Your task to perform on an android device: move a message to another label in the gmail app Image 0: 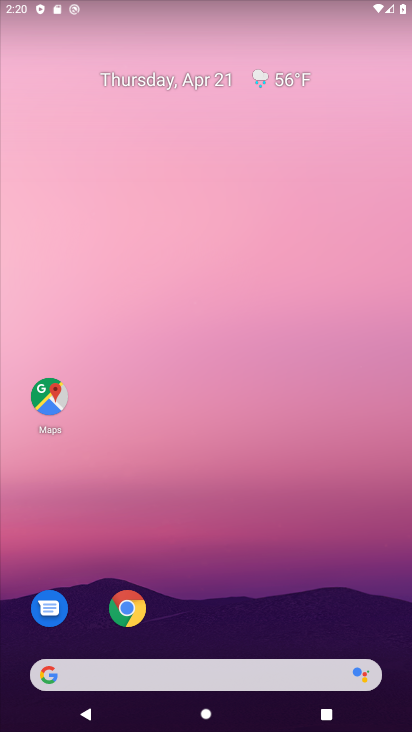
Step 0: drag from (274, 456) to (245, 111)
Your task to perform on an android device: move a message to another label in the gmail app Image 1: 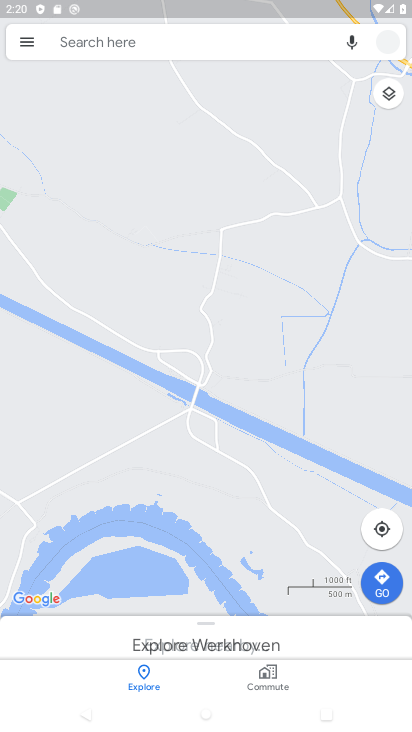
Step 1: press home button
Your task to perform on an android device: move a message to another label in the gmail app Image 2: 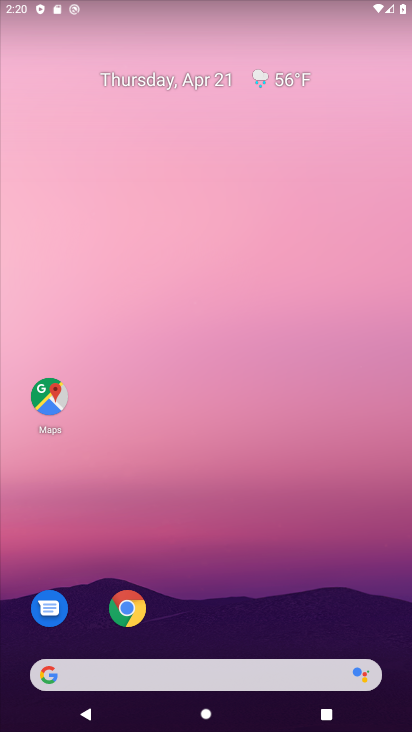
Step 2: drag from (206, 519) to (199, 112)
Your task to perform on an android device: move a message to another label in the gmail app Image 3: 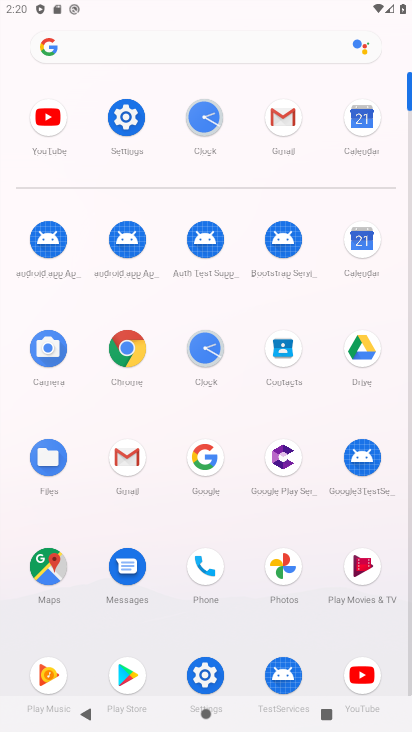
Step 3: click (290, 116)
Your task to perform on an android device: move a message to another label in the gmail app Image 4: 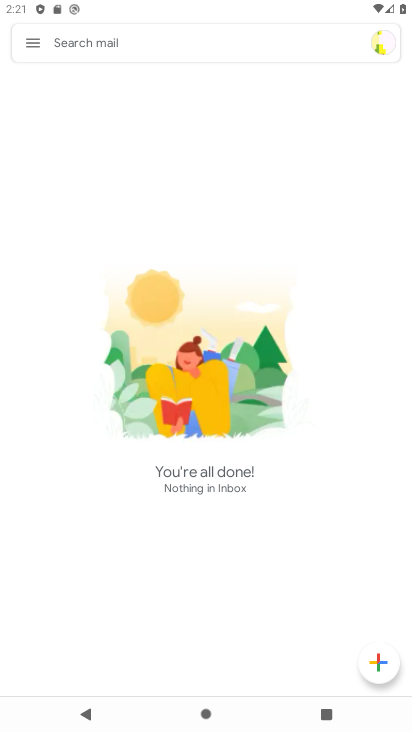
Step 4: click (32, 46)
Your task to perform on an android device: move a message to another label in the gmail app Image 5: 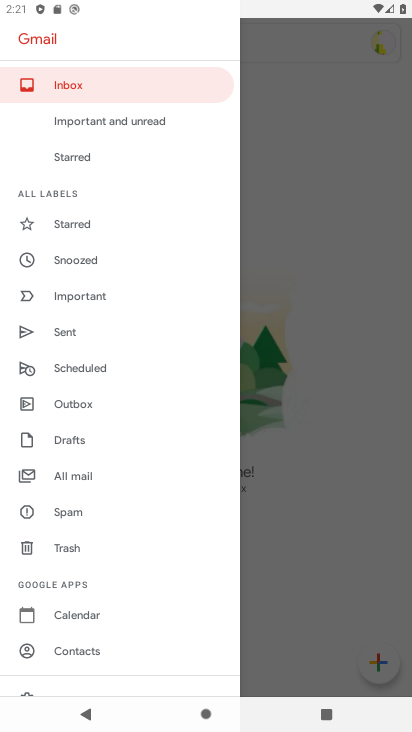
Step 5: click (77, 478)
Your task to perform on an android device: move a message to another label in the gmail app Image 6: 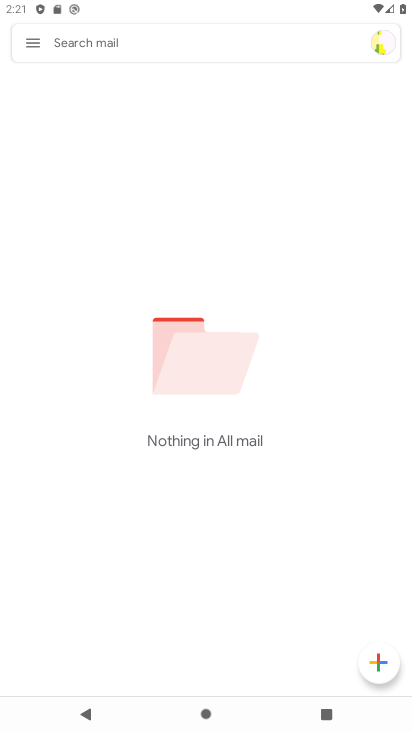
Step 6: task complete